Your task to perform on an android device: How big is a giraffe? Image 0: 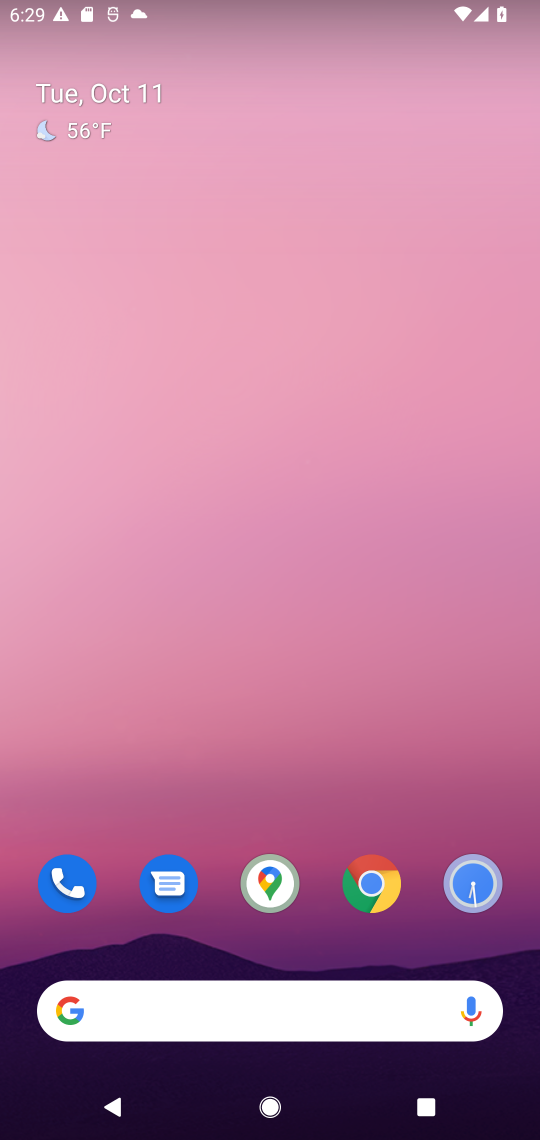
Step 0: drag from (311, 964) to (411, 205)
Your task to perform on an android device: How big is a giraffe? Image 1: 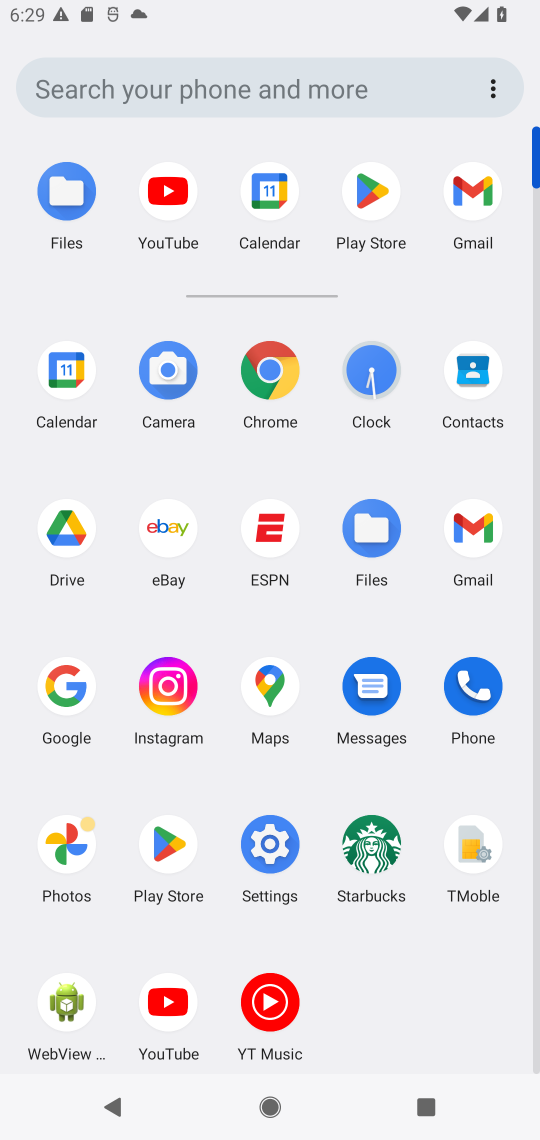
Step 1: click (277, 366)
Your task to perform on an android device: How big is a giraffe? Image 2: 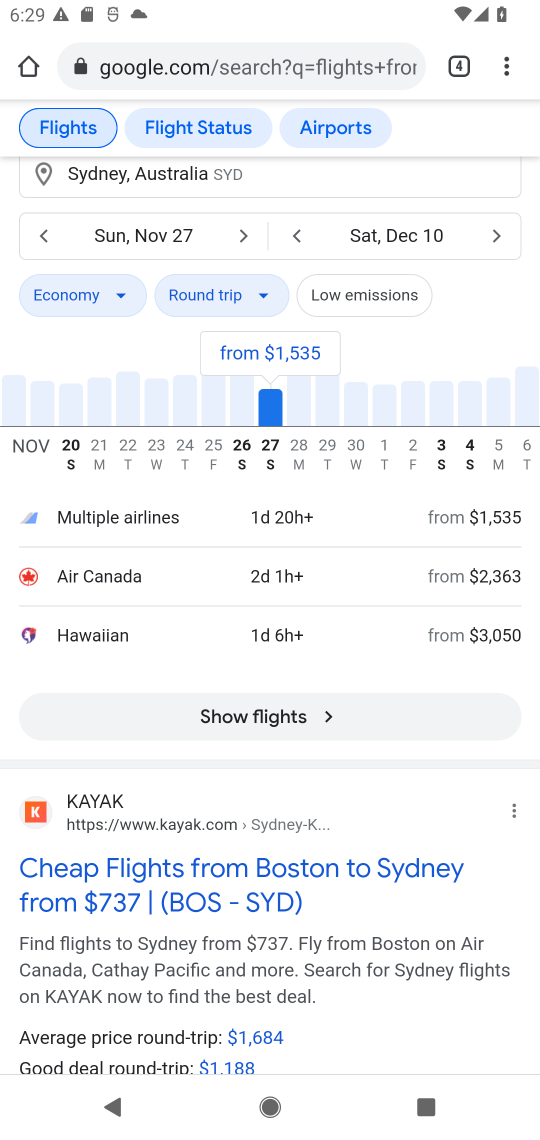
Step 2: click (295, 67)
Your task to perform on an android device: How big is a giraffe? Image 3: 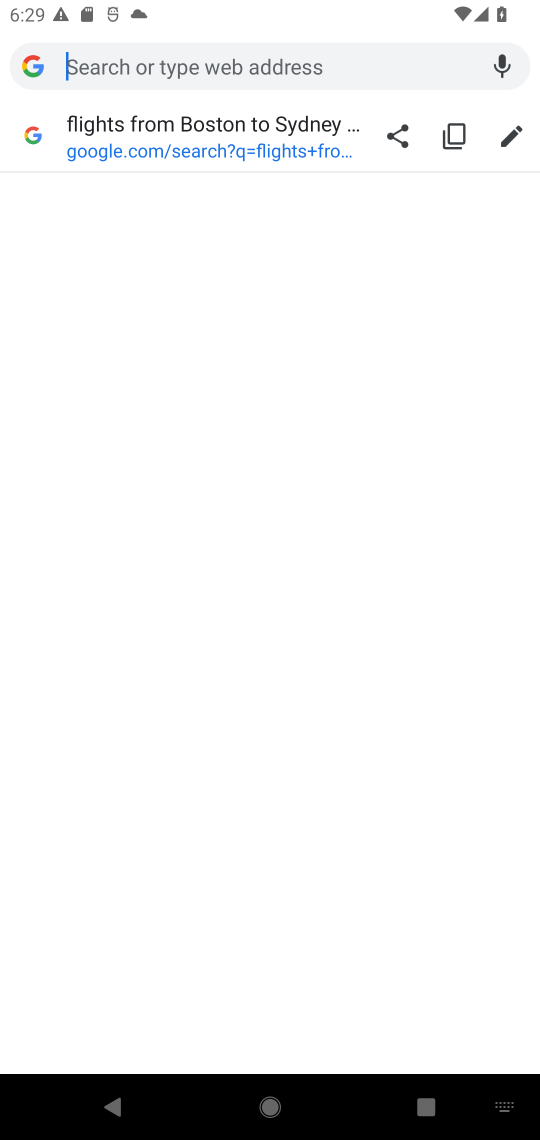
Step 3: type "How big is a giraffe?"
Your task to perform on an android device: How big is a giraffe? Image 4: 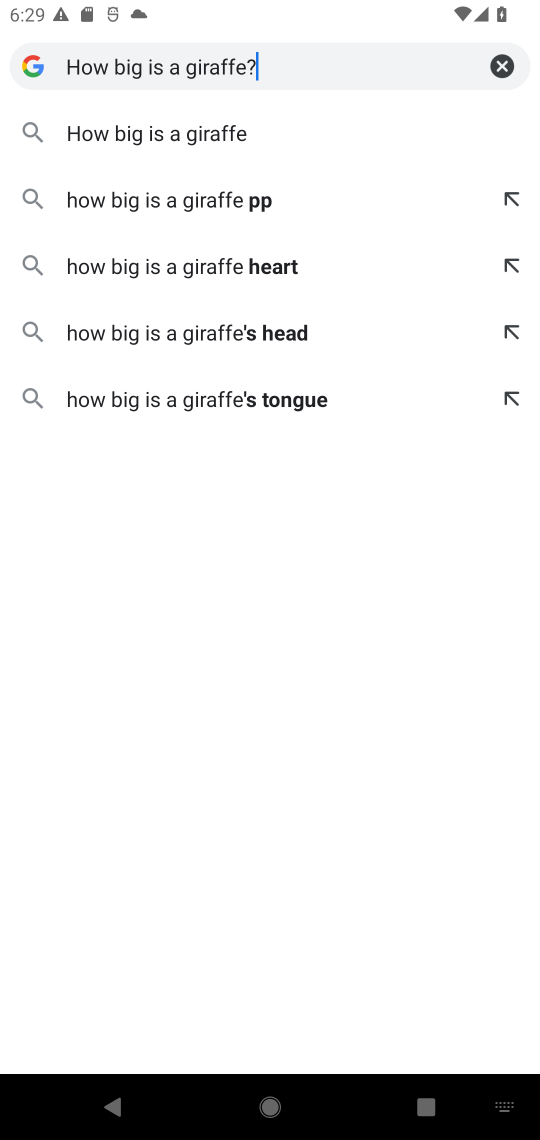
Step 4: press enter
Your task to perform on an android device: How big is a giraffe? Image 5: 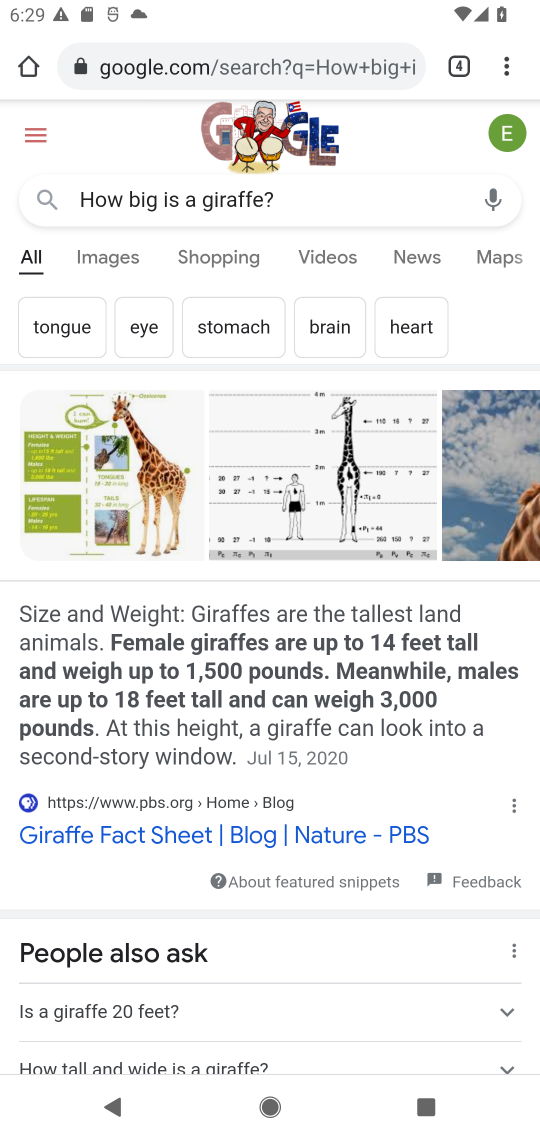
Step 5: task complete